Your task to perform on an android device: turn off location history Image 0: 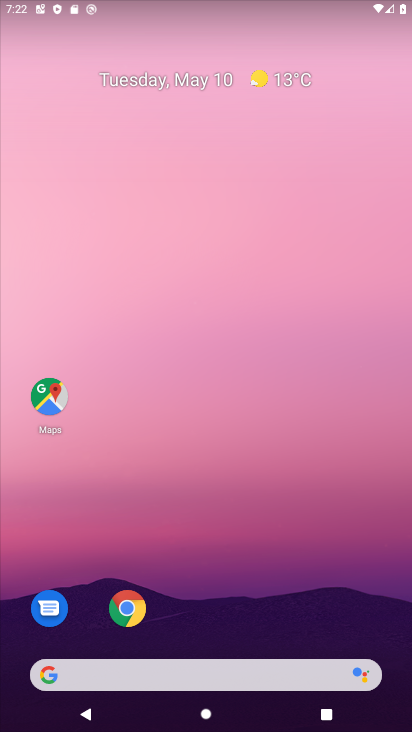
Step 0: drag from (236, 588) to (258, 230)
Your task to perform on an android device: turn off location history Image 1: 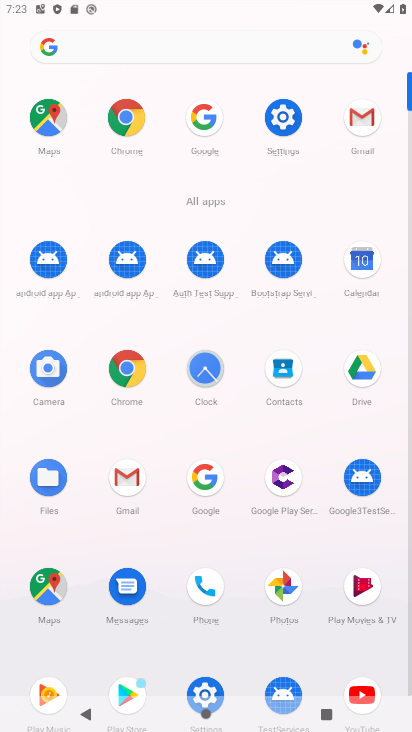
Step 1: click (266, 114)
Your task to perform on an android device: turn off location history Image 2: 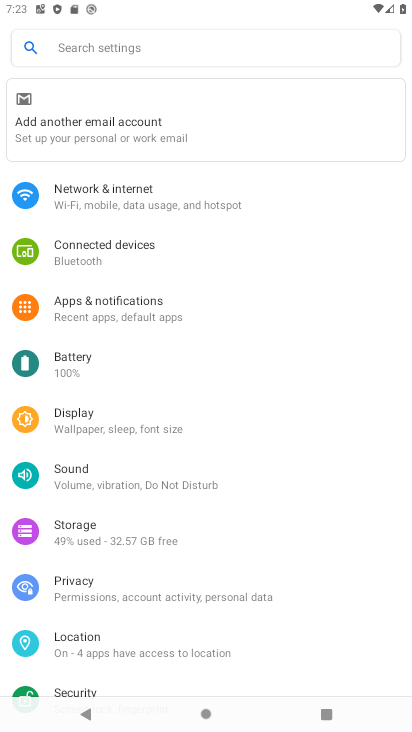
Step 2: click (112, 633)
Your task to perform on an android device: turn off location history Image 3: 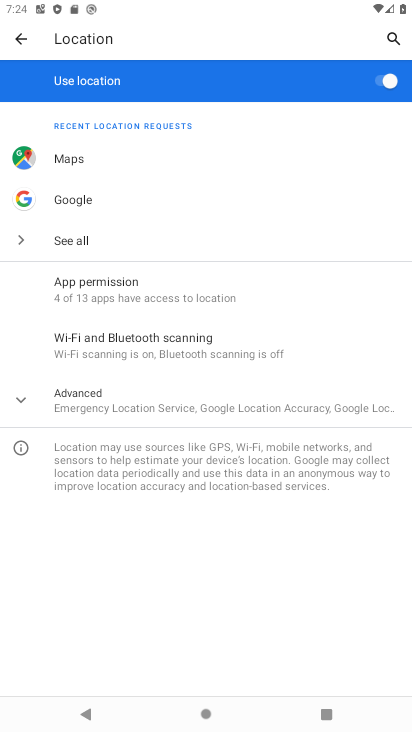
Step 3: click (379, 91)
Your task to perform on an android device: turn off location history Image 4: 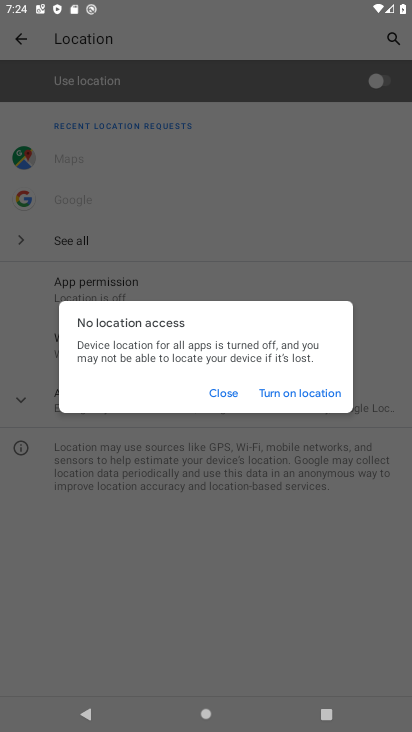
Step 4: task complete